Your task to perform on an android device: What's the weather going to be tomorrow? Image 0: 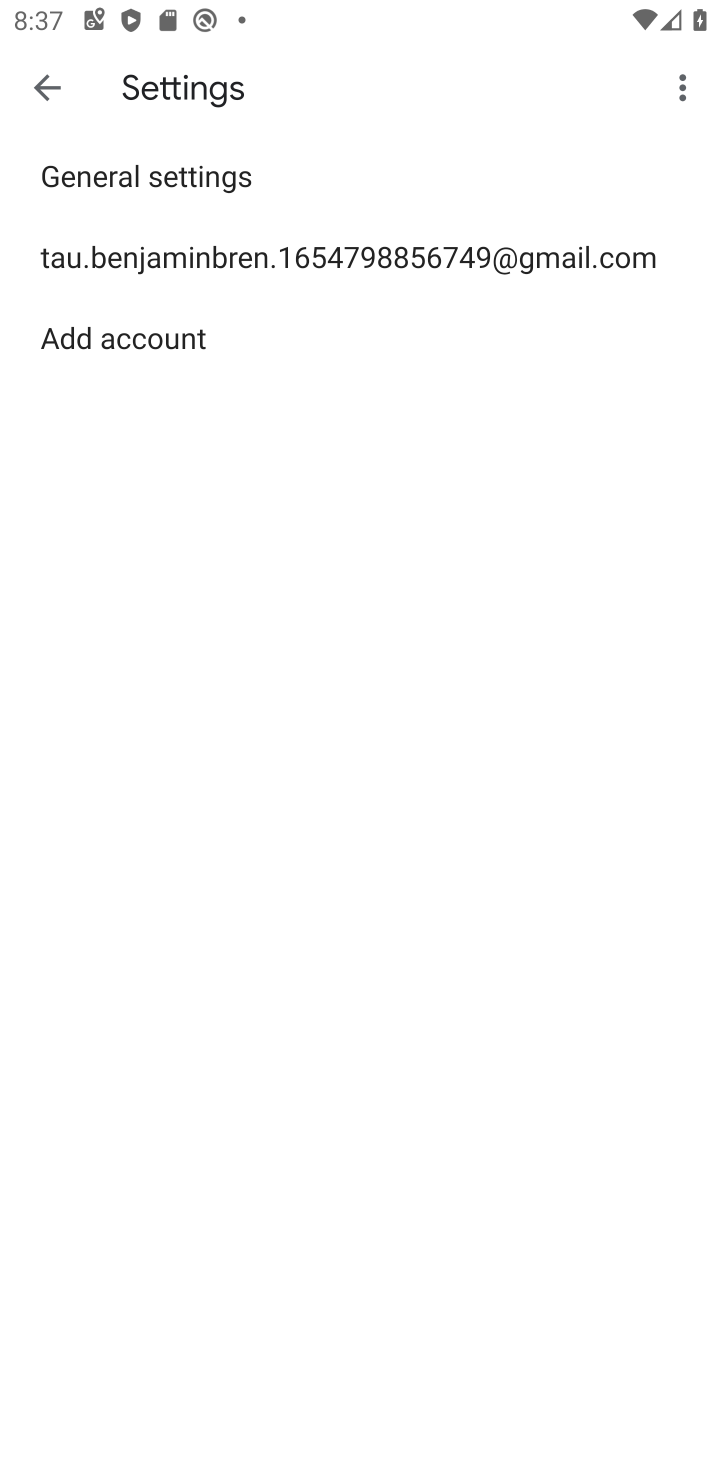
Step 0: press home button
Your task to perform on an android device: What's the weather going to be tomorrow? Image 1: 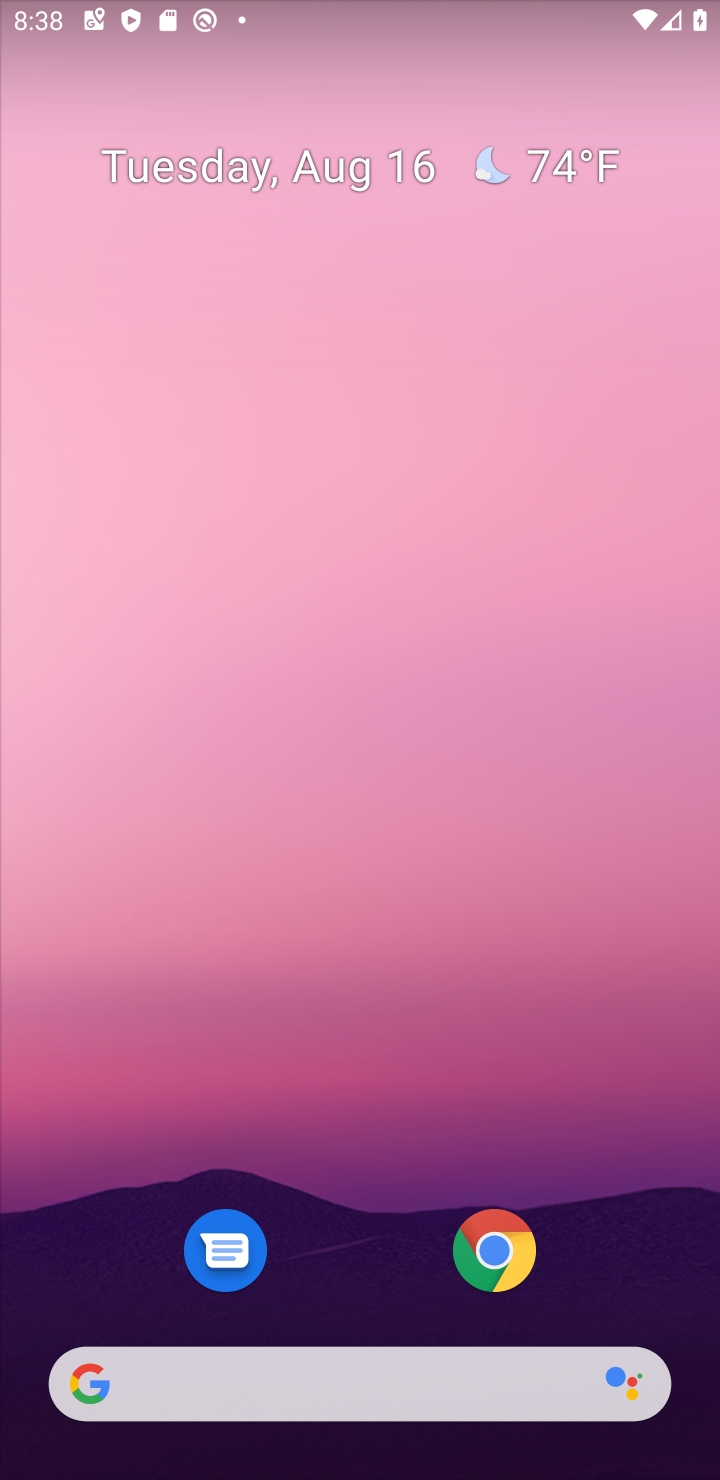
Step 1: click (567, 182)
Your task to perform on an android device: What's the weather going to be tomorrow? Image 2: 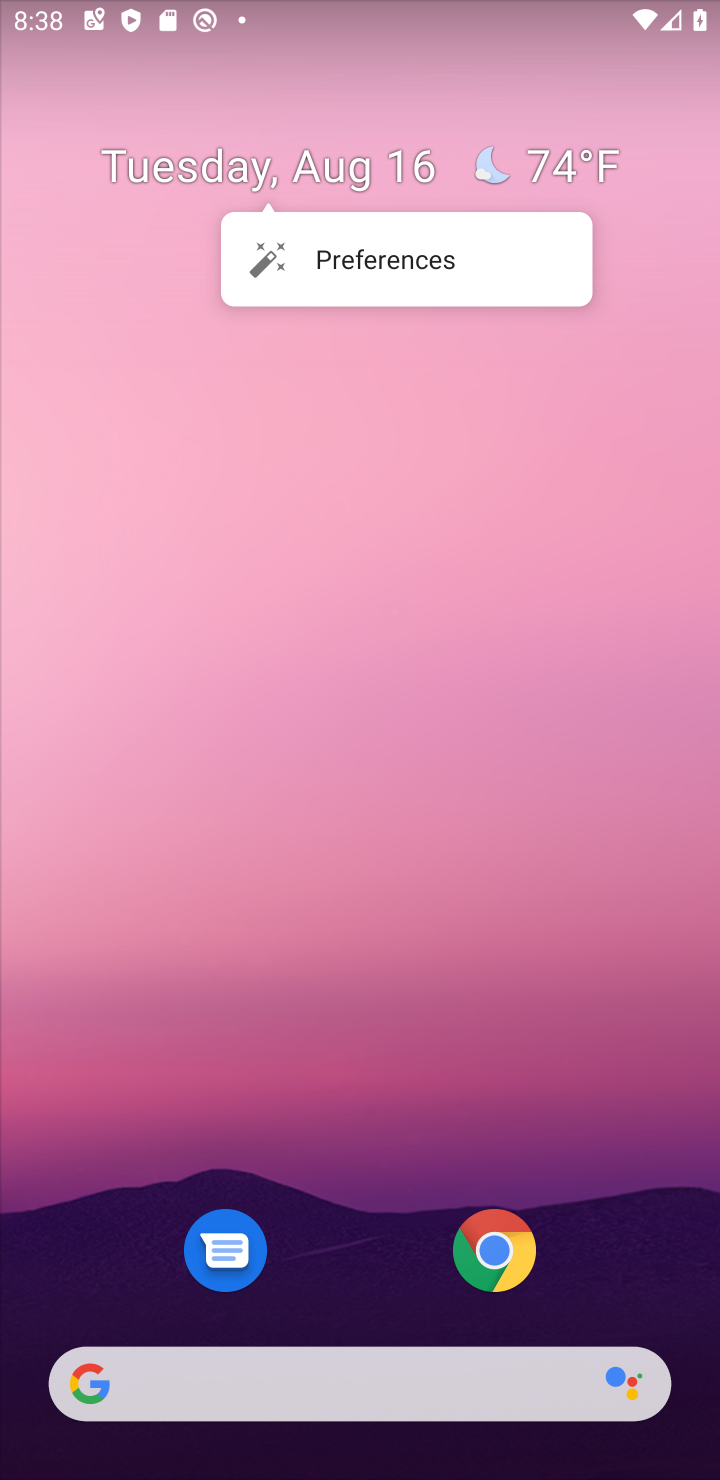
Step 2: click (570, 163)
Your task to perform on an android device: What's the weather going to be tomorrow? Image 3: 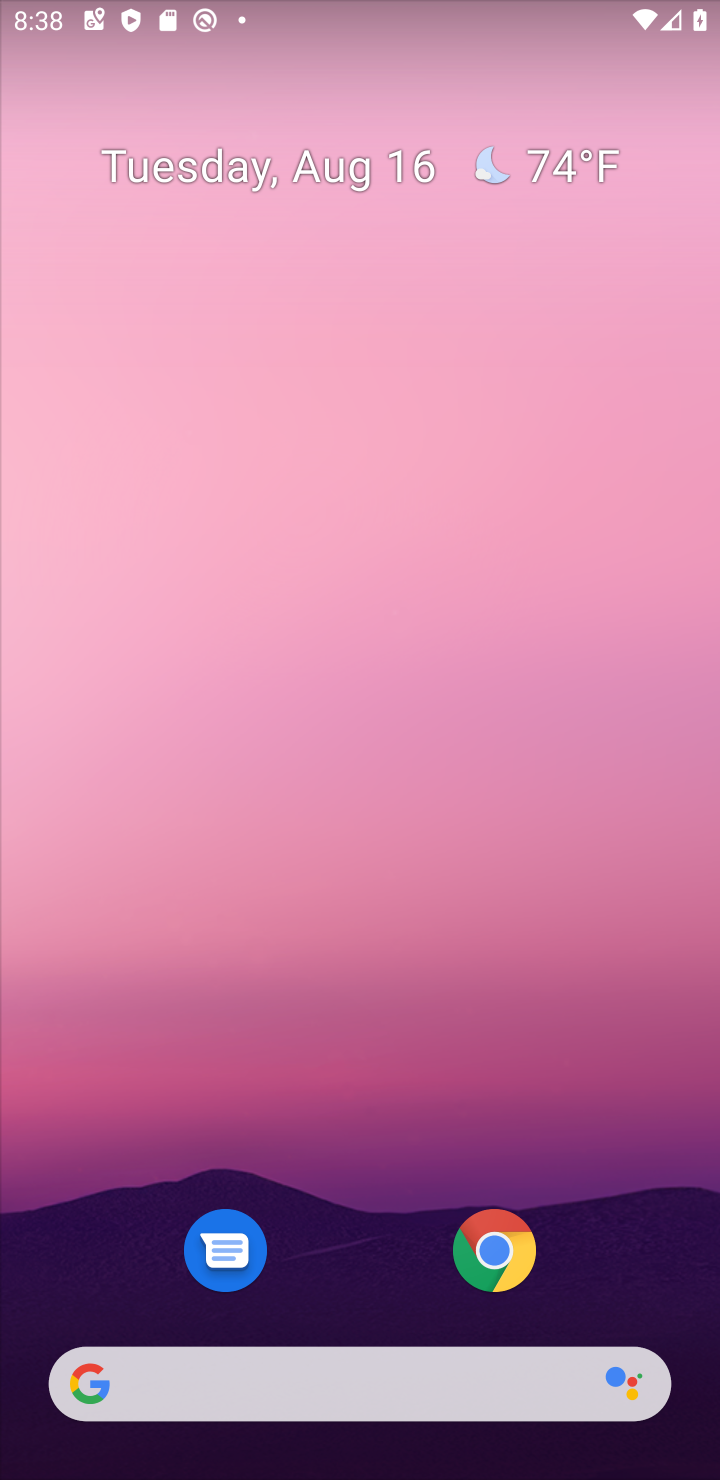
Step 3: click (570, 163)
Your task to perform on an android device: What's the weather going to be tomorrow? Image 4: 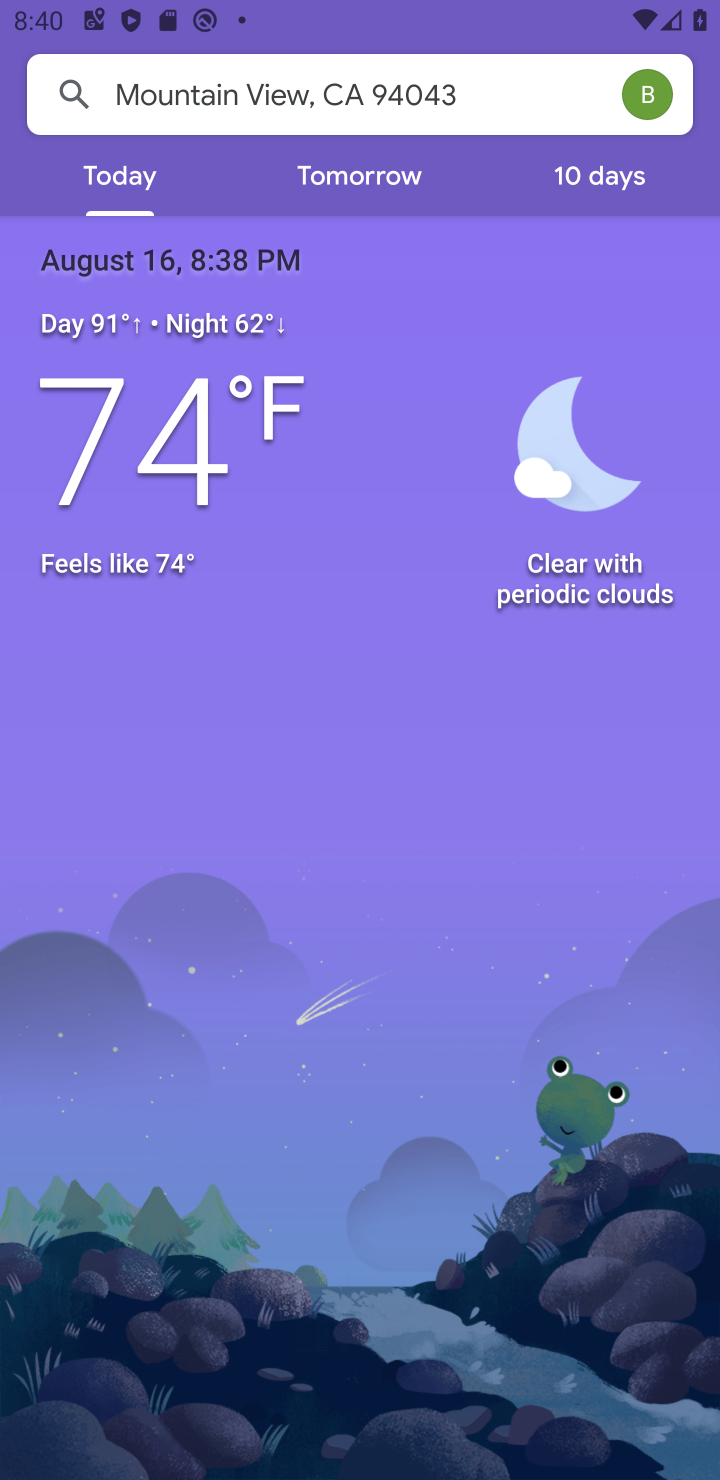
Step 4: task complete